Your task to perform on an android device: Open sound settings Image 0: 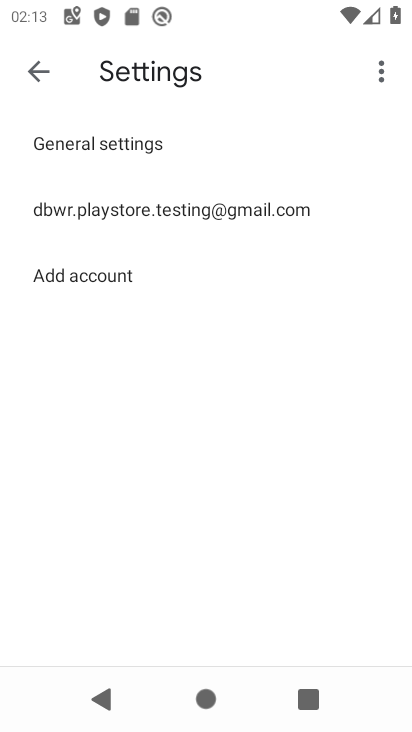
Step 0: press home button
Your task to perform on an android device: Open sound settings Image 1: 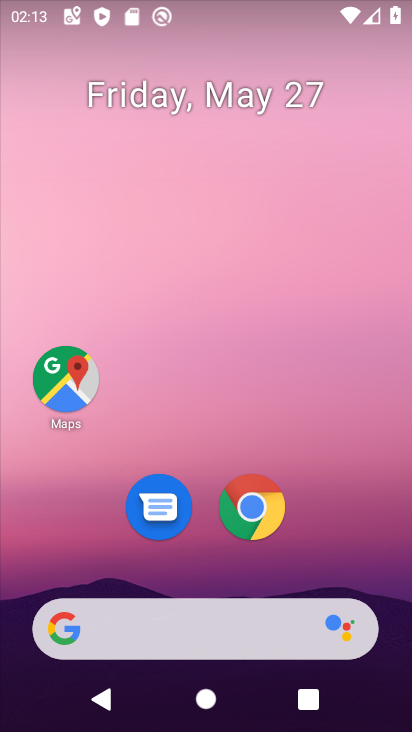
Step 1: drag from (212, 376) to (180, 76)
Your task to perform on an android device: Open sound settings Image 2: 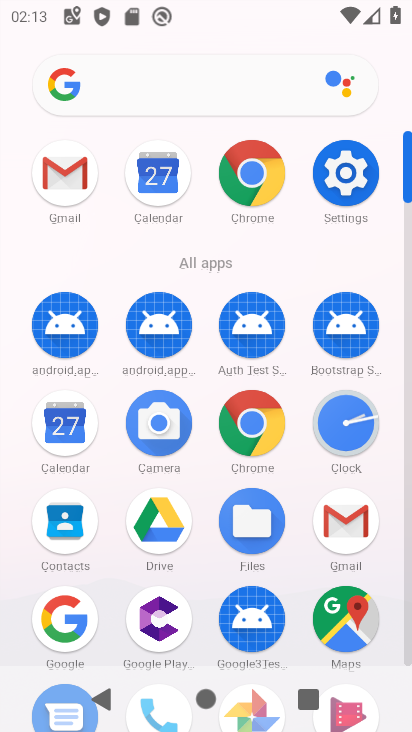
Step 2: click (345, 189)
Your task to perform on an android device: Open sound settings Image 3: 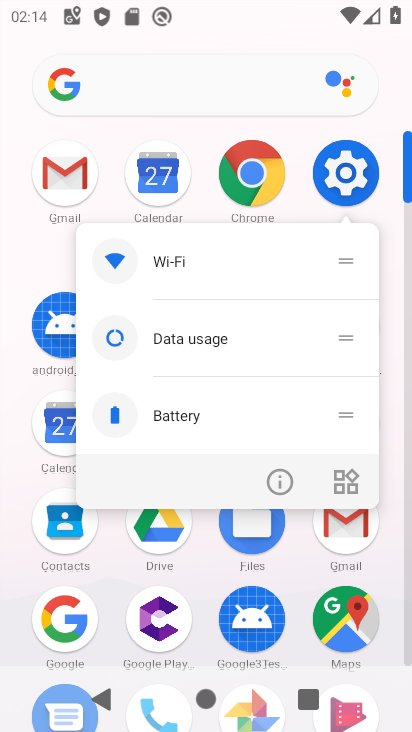
Step 3: click (273, 480)
Your task to perform on an android device: Open sound settings Image 4: 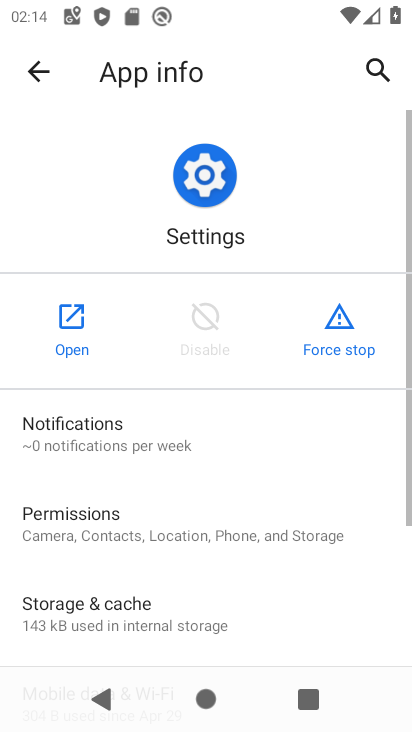
Step 4: click (47, 337)
Your task to perform on an android device: Open sound settings Image 5: 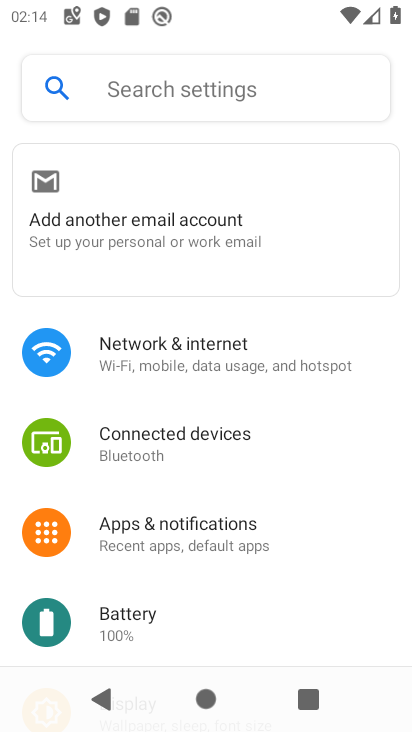
Step 5: drag from (189, 619) to (262, 41)
Your task to perform on an android device: Open sound settings Image 6: 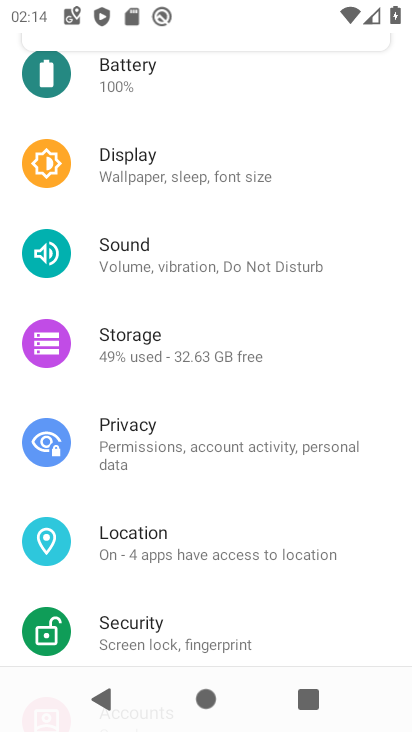
Step 6: click (166, 269)
Your task to perform on an android device: Open sound settings Image 7: 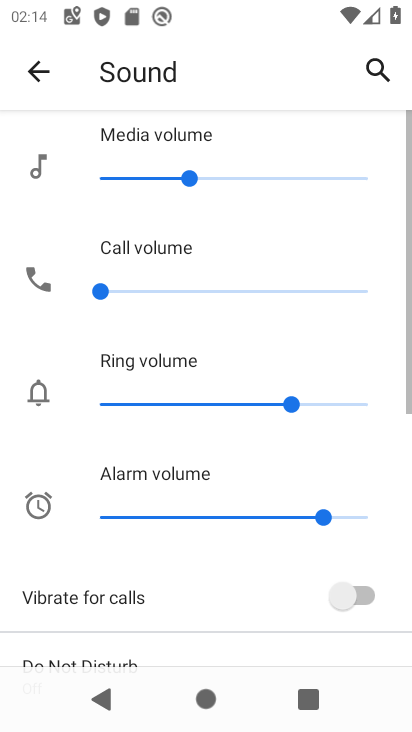
Step 7: task complete